Your task to perform on an android device: Add "rayovac triple a" to the cart on ebay.com Image 0: 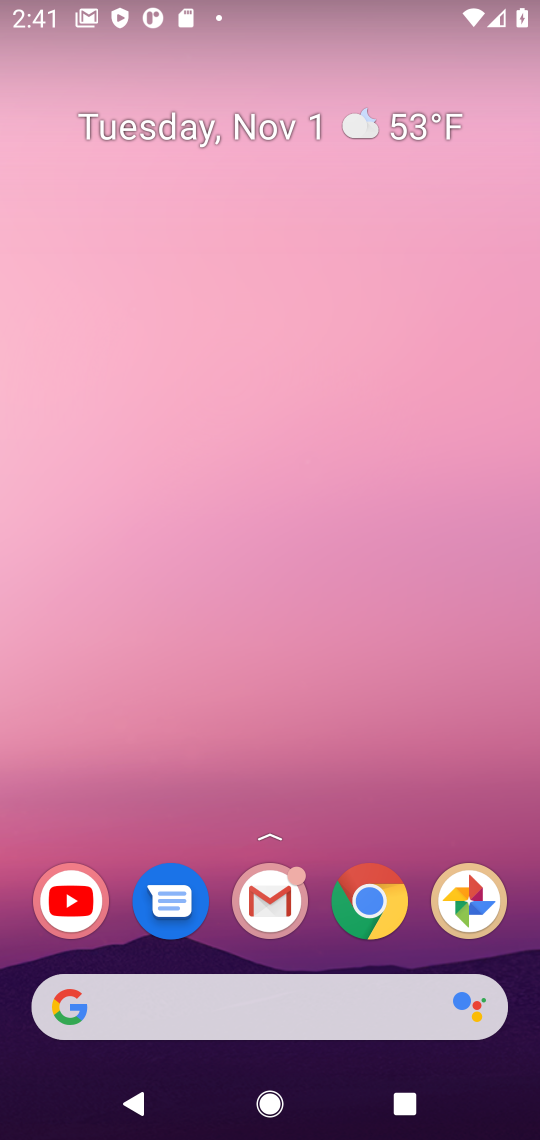
Step 0: click (379, 934)
Your task to perform on an android device: Add "rayovac triple a" to the cart on ebay.com Image 1: 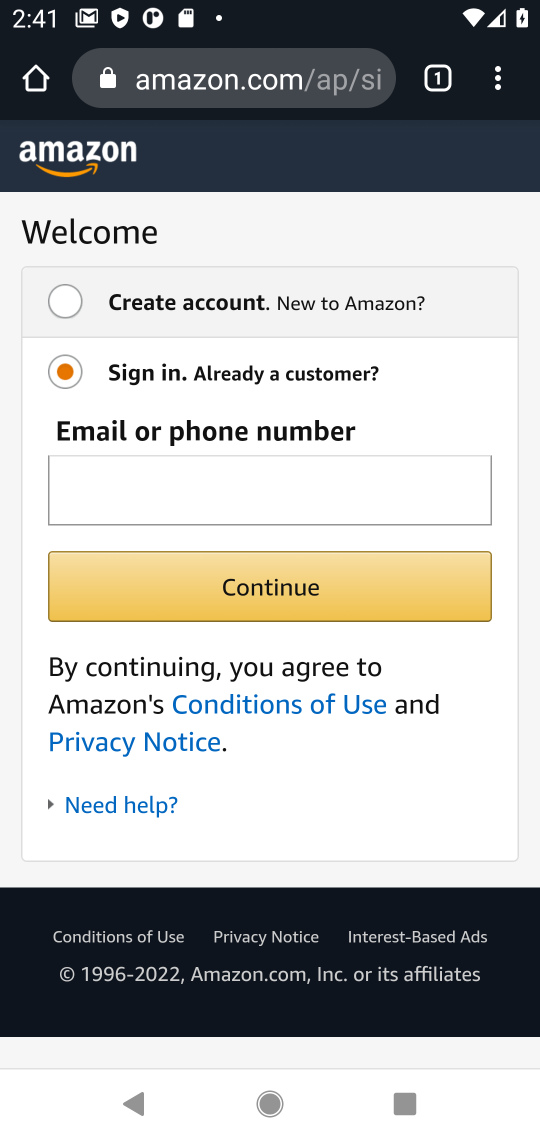
Step 1: click (217, 75)
Your task to perform on an android device: Add "rayovac triple a" to the cart on ebay.com Image 2: 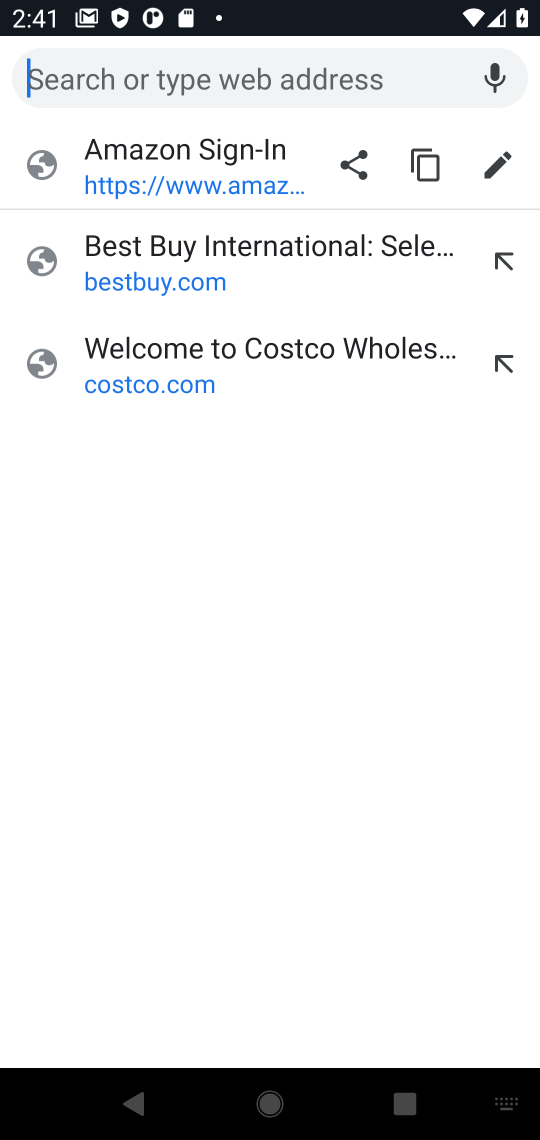
Step 2: type "ebay.com"
Your task to perform on an android device: Add "rayovac triple a" to the cart on ebay.com Image 3: 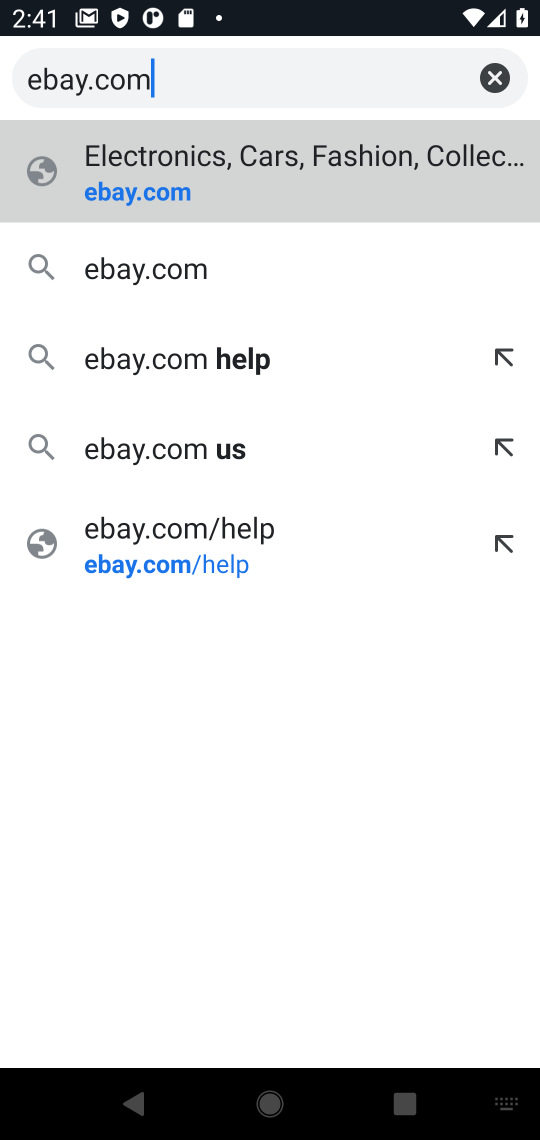
Step 3: click (345, 184)
Your task to perform on an android device: Add "rayovac triple a" to the cart on ebay.com Image 4: 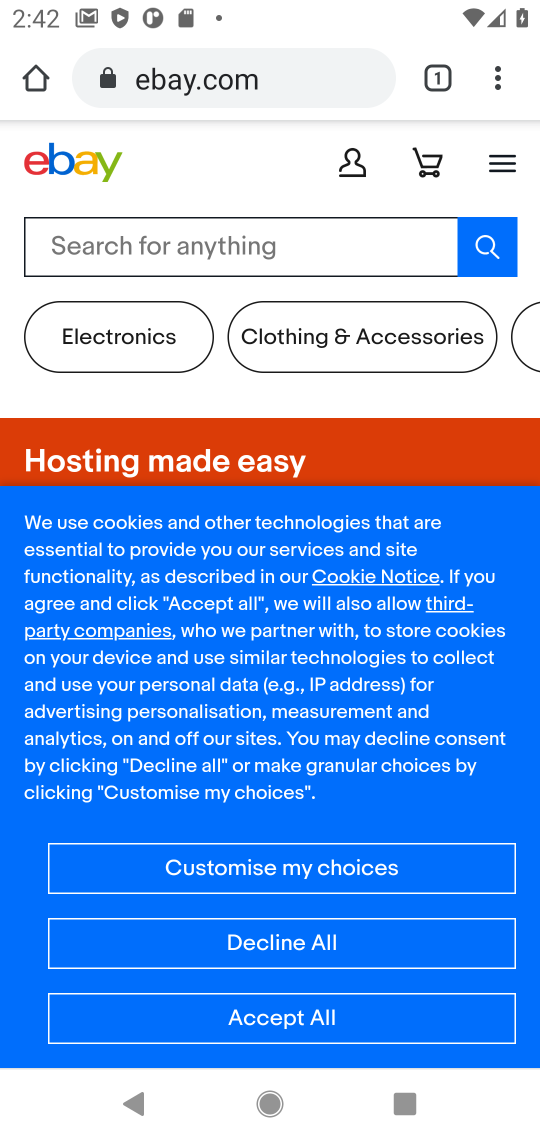
Step 4: click (286, 1021)
Your task to perform on an android device: Add "rayovac triple a" to the cart on ebay.com Image 5: 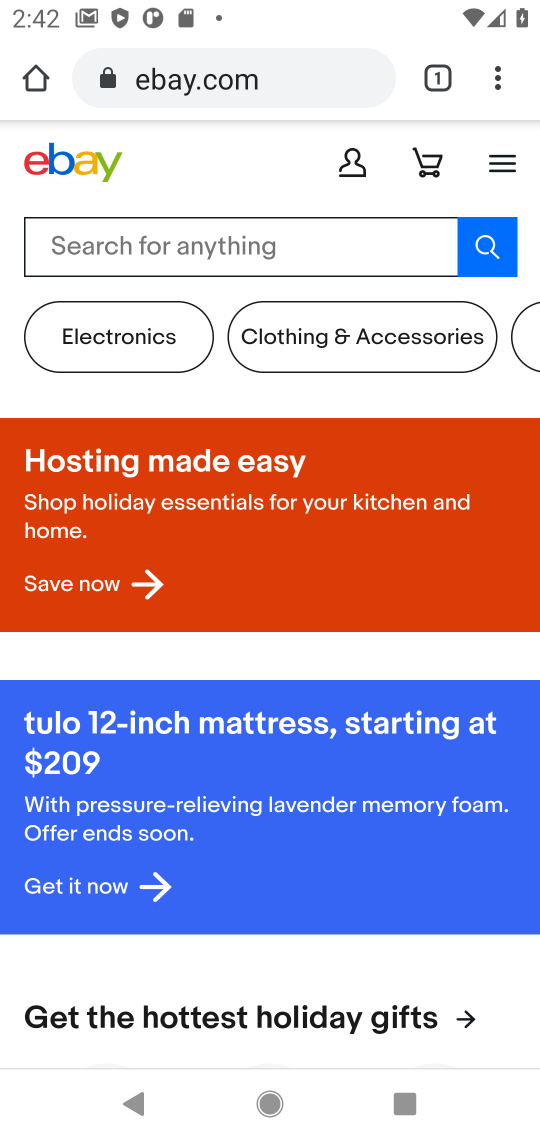
Step 5: click (199, 243)
Your task to perform on an android device: Add "rayovac triple a" to the cart on ebay.com Image 6: 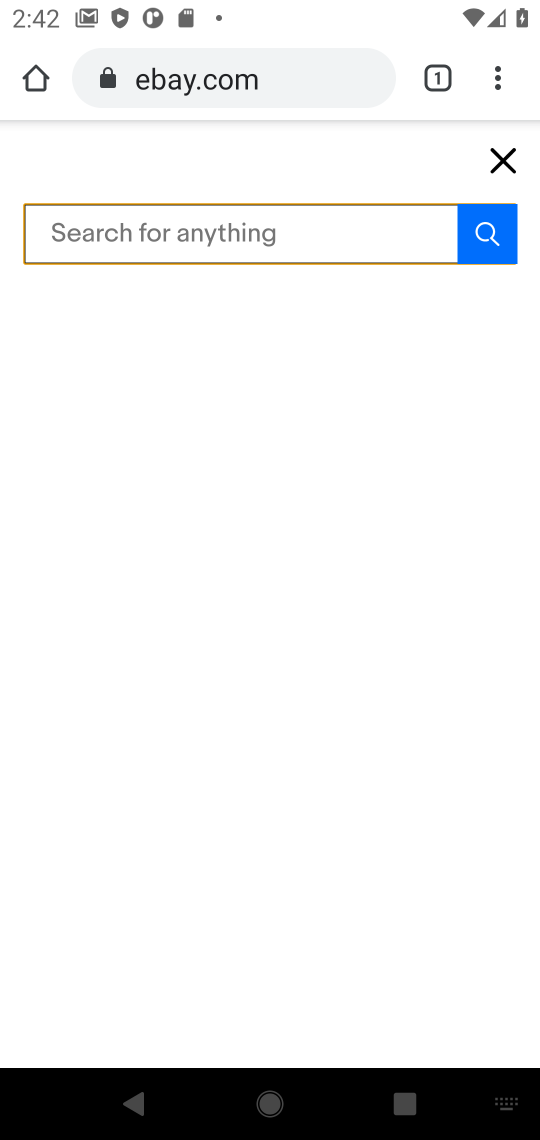
Step 6: type "rayovac triple a"
Your task to perform on an android device: Add "rayovac triple a" to the cart on ebay.com Image 7: 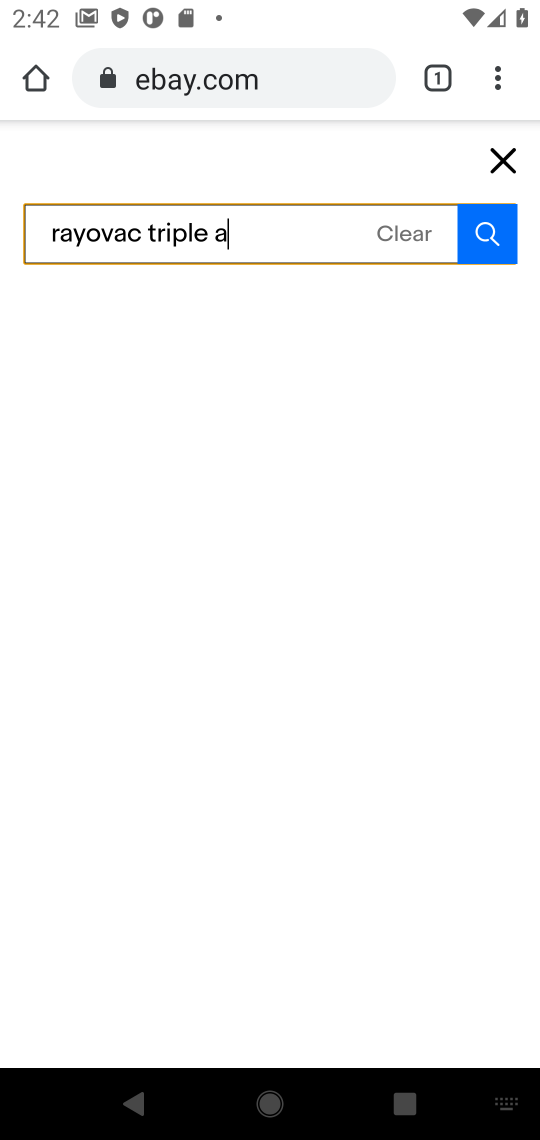
Step 7: click (489, 240)
Your task to perform on an android device: Add "rayovac triple a" to the cart on ebay.com Image 8: 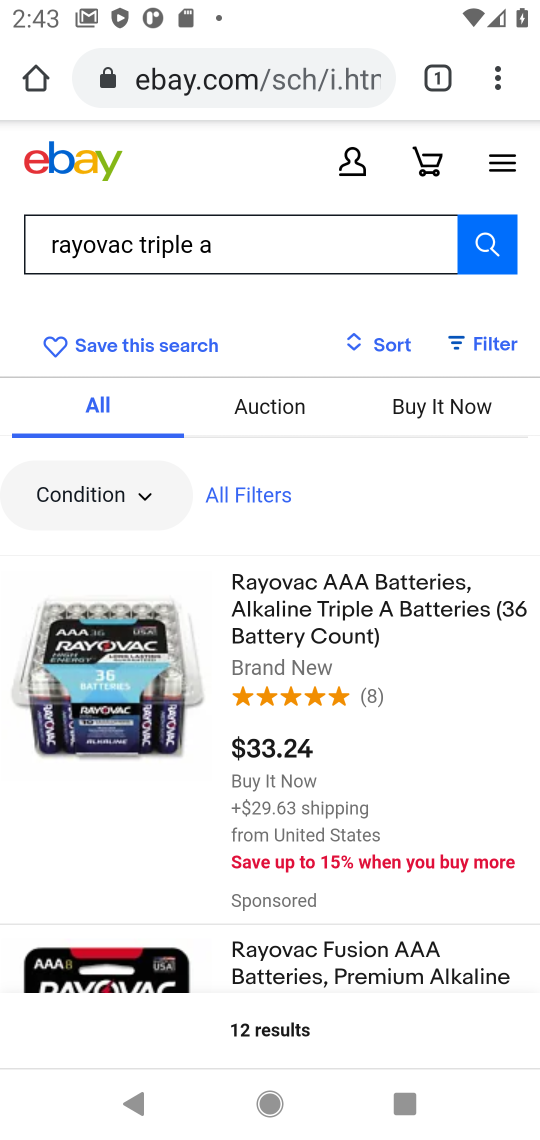
Step 8: click (268, 607)
Your task to perform on an android device: Add "rayovac triple a" to the cart on ebay.com Image 9: 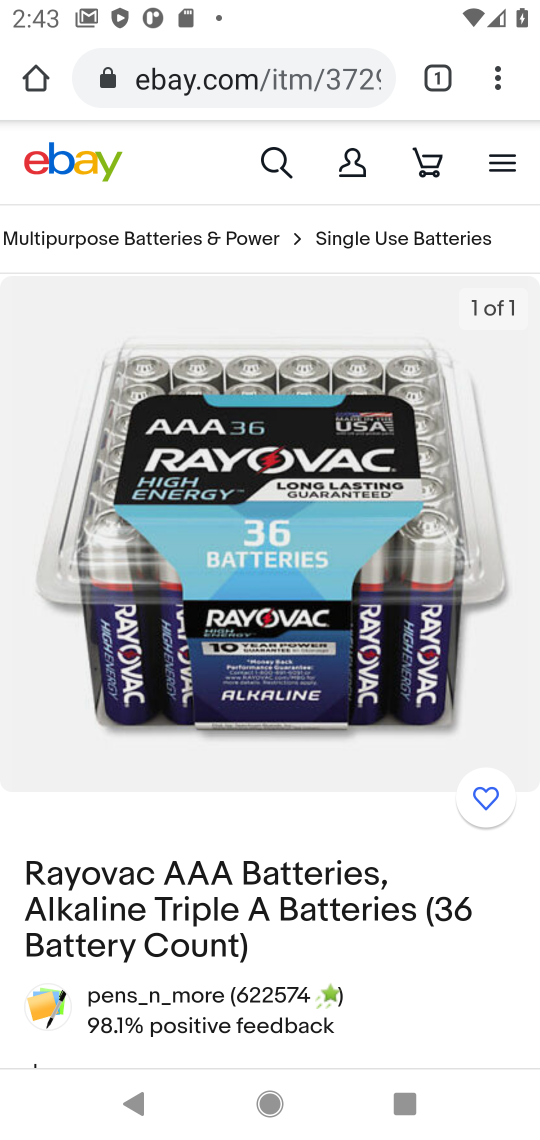
Step 9: drag from (436, 927) to (250, 171)
Your task to perform on an android device: Add "rayovac triple a" to the cart on ebay.com Image 10: 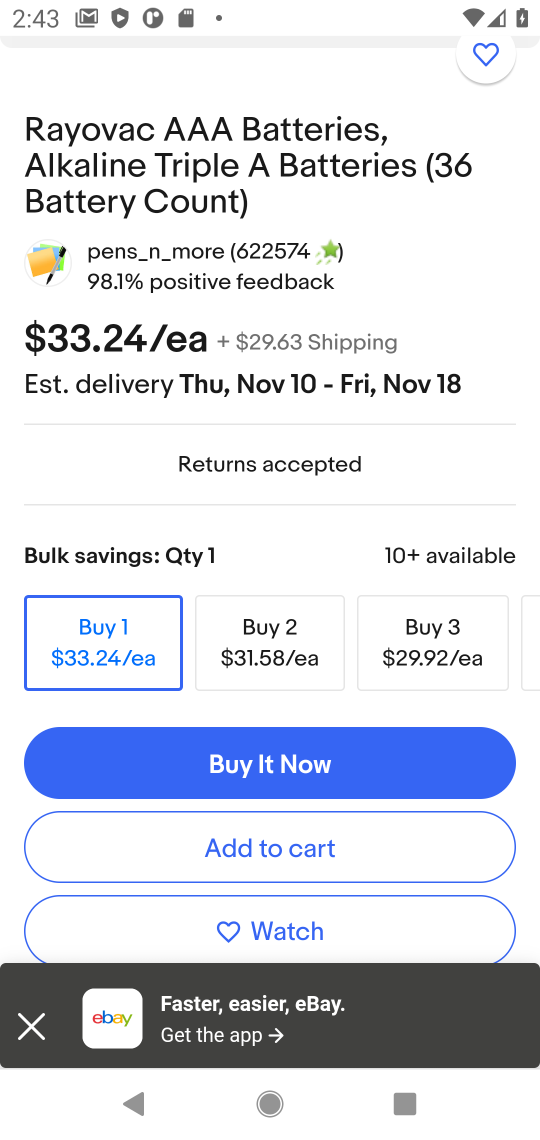
Step 10: click (181, 840)
Your task to perform on an android device: Add "rayovac triple a" to the cart on ebay.com Image 11: 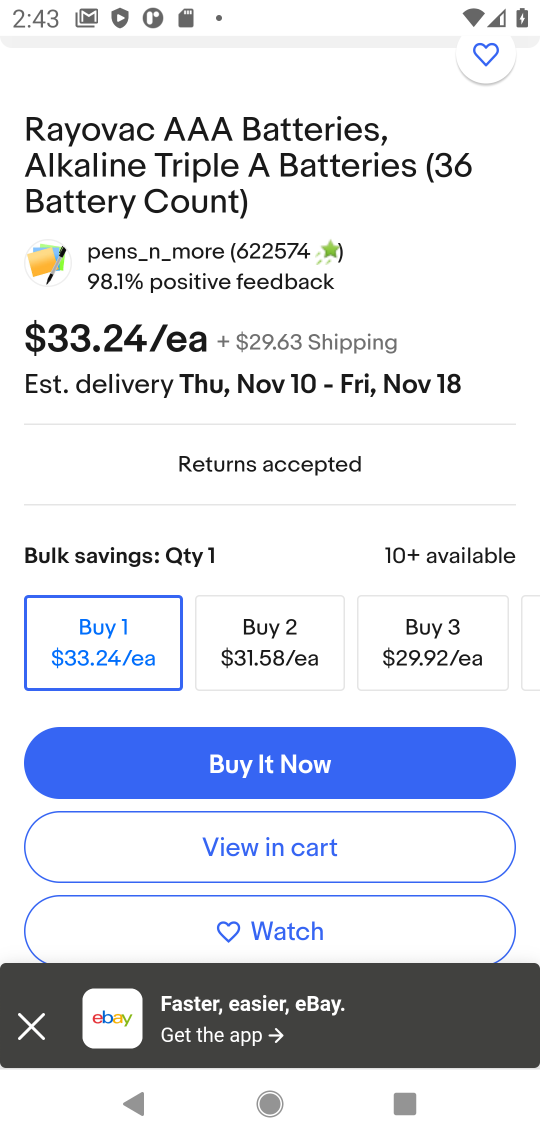
Step 11: task complete